Your task to perform on an android device: Open Yahoo.com Image 0: 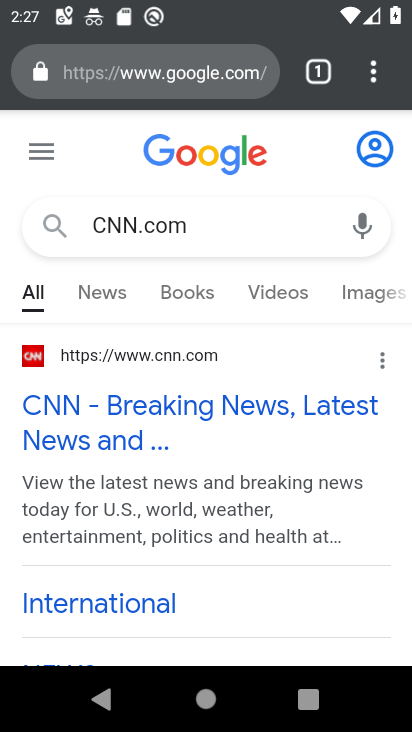
Step 0: click (137, 64)
Your task to perform on an android device: Open Yahoo.com Image 1: 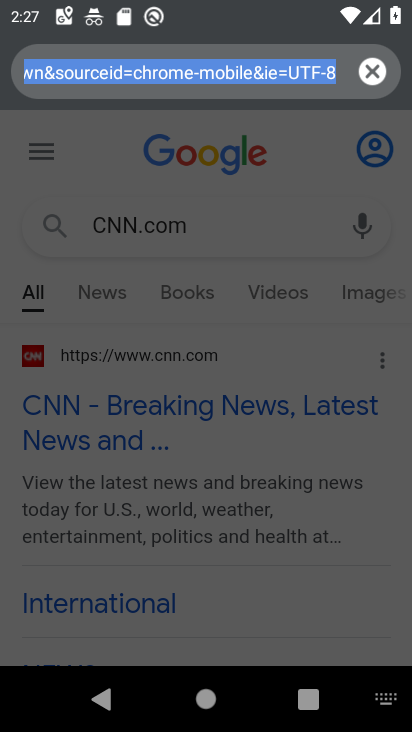
Step 1: type "Yahoo.com"
Your task to perform on an android device: Open Yahoo.com Image 2: 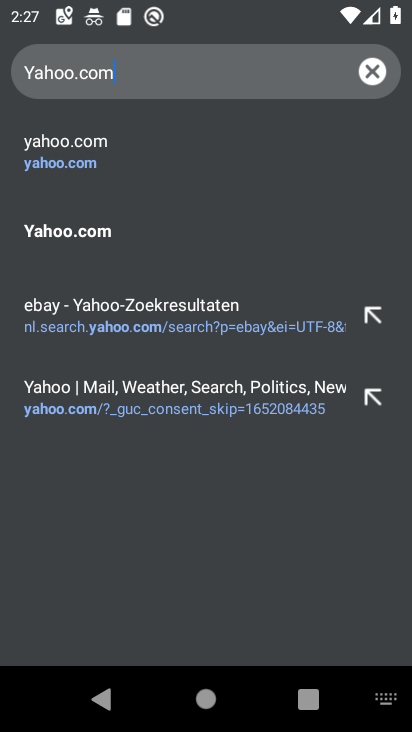
Step 2: click (120, 157)
Your task to perform on an android device: Open Yahoo.com Image 3: 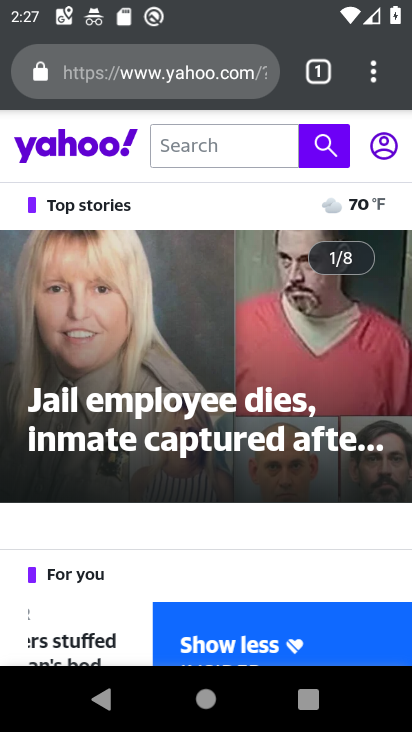
Step 3: task complete